Your task to perform on an android device: change timer sound Image 0: 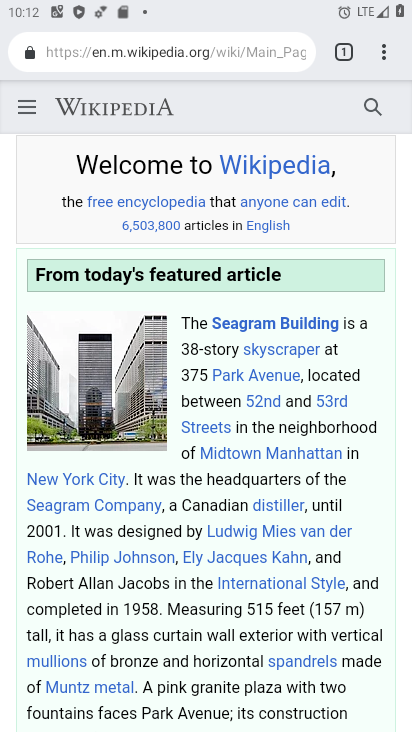
Step 0: press home button
Your task to perform on an android device: change timer sound Image 1: 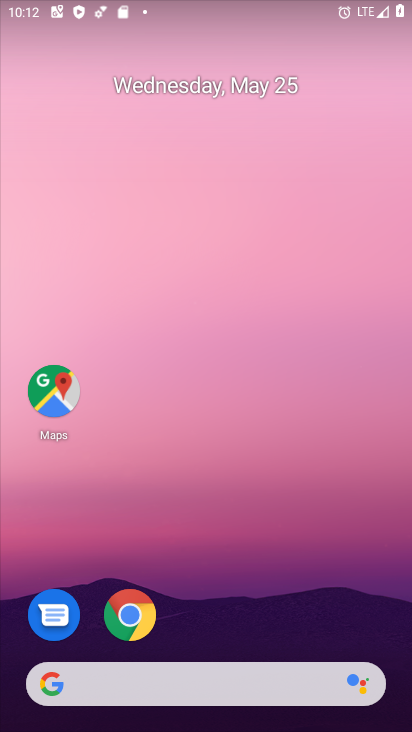
Step 1: drag from (238, 534) to (270, 10)
Your task to perform on an android device: change timer sound Image 2: 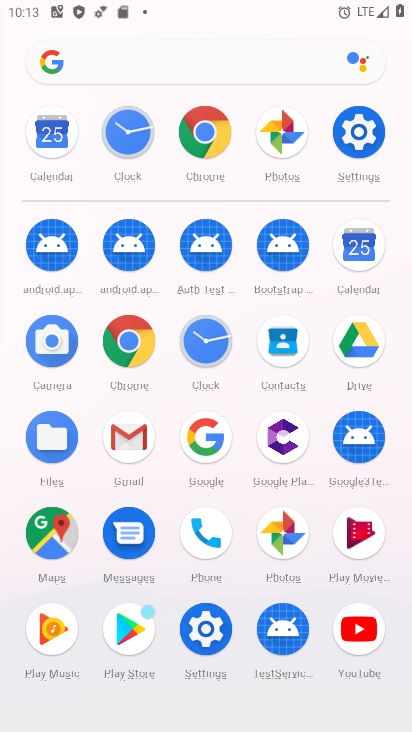
Step 2: click (145, 132)
Your task to perform on an android device: change timer sound Image 3: 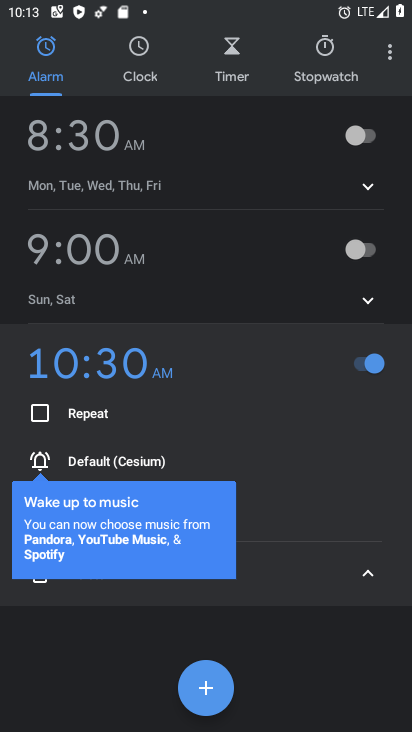
Step 3: click (383, 51)
Your task to perform on an android device: change timer sound Image 4: 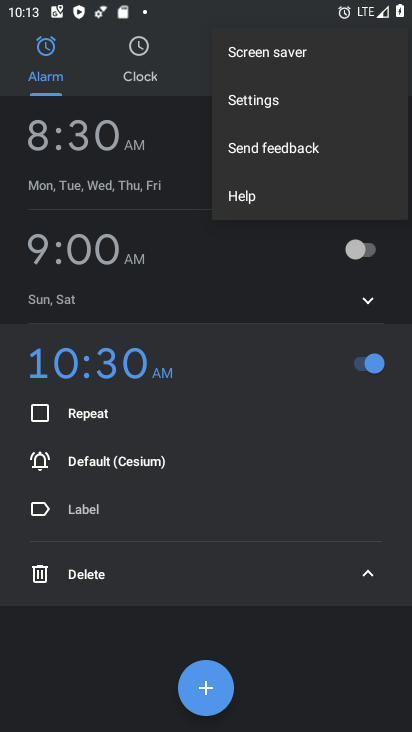
Step 4: click (319, 105)
Your task to perform on an android device: change timer sound Image 5: 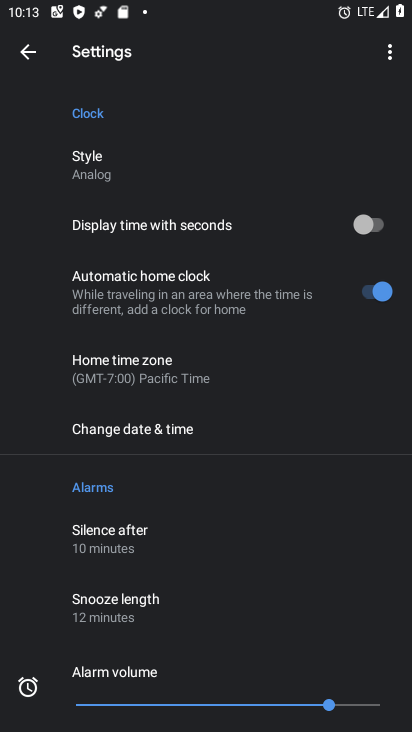
Step 5: drag from (260, 527) to (316, 190)
Your task to perform on an android device: change timer sound Image 6: 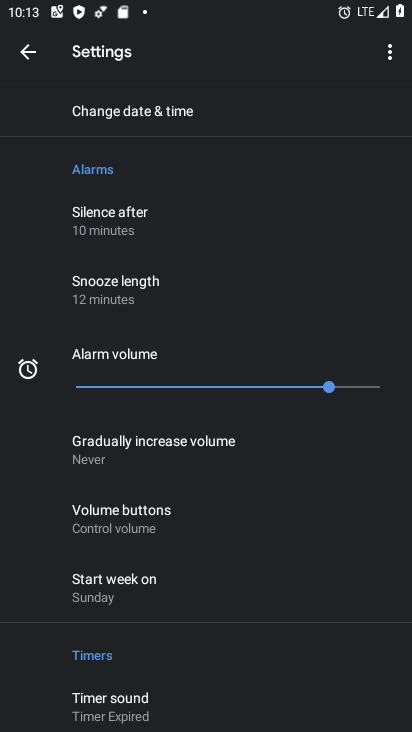
Step 6: click (178, 715)
Your task to perform on an android device: change timer sound Image 7: 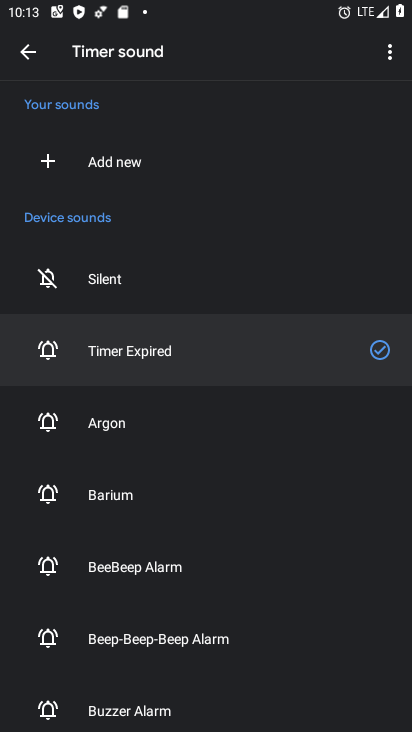
Step 7: click (155, 497)
Your task to perform on an android device: change timer sound Image 8: 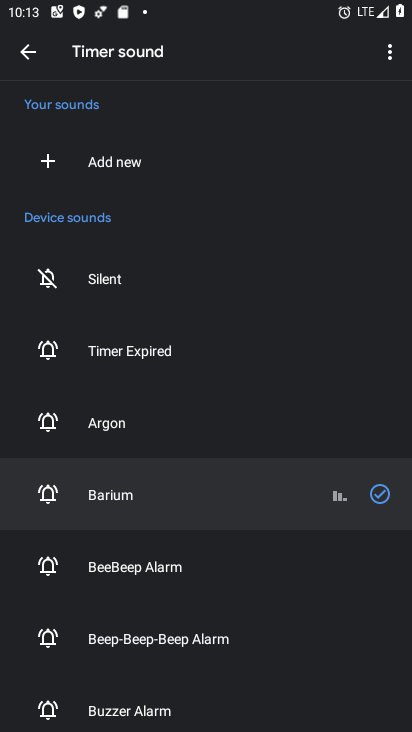
Step 8: task complete